Your task to perform on an android device: Show me recent news Image 0: 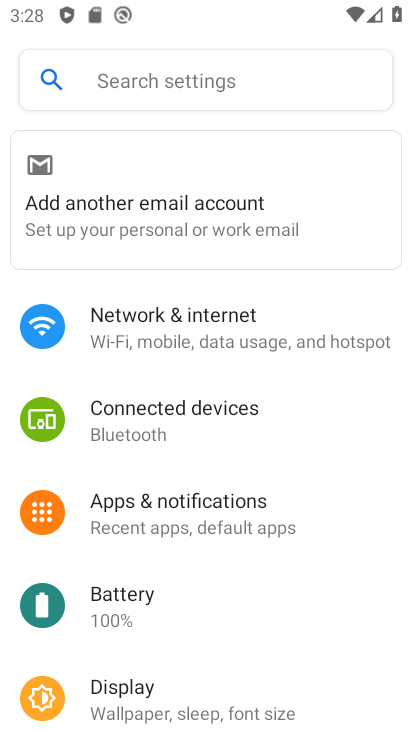
Step 0: press back button
Your task to perform on an android device: Show me recent news Image 1: 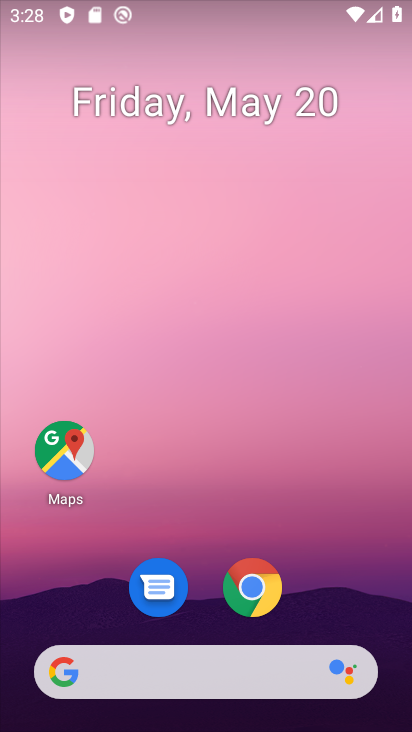
Step 1: drag from (346, 593) to (266, 15)
Your task to perform on an android device: Show me recent news Image 2: 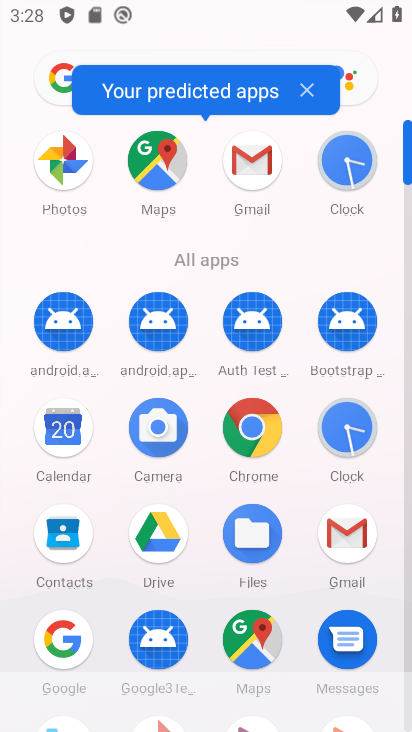
Step 2: click (252, 425)
Your task to perform on an android device: Show me recent news Image 3: 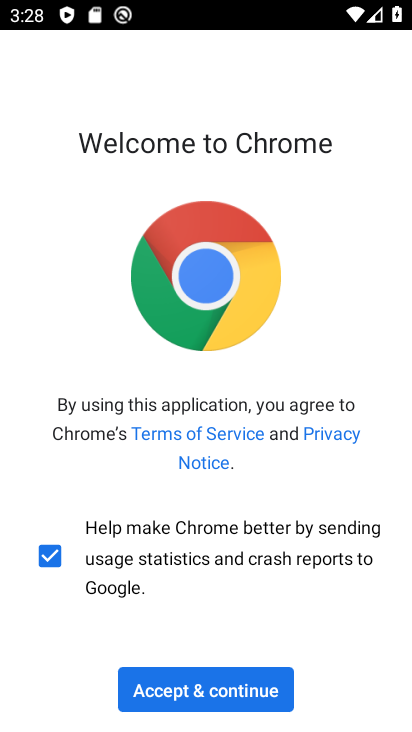
Step 3: click (181, 668)
Your task to perform on an android device: Show me recent news Image 4: 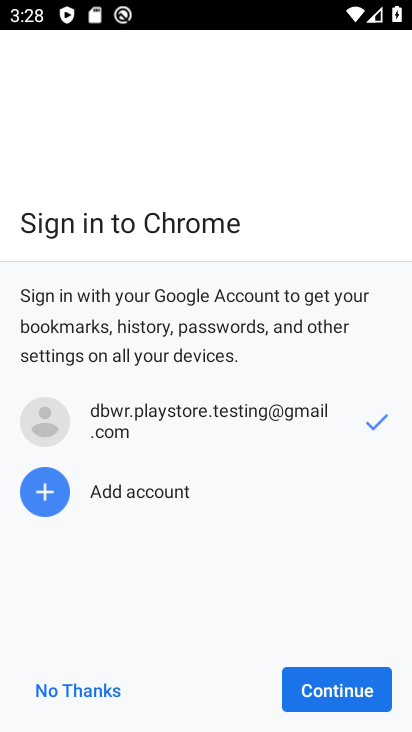
Step 4: click (355, 676)
Your task to perform on an android device: Show me recent news Image 5: 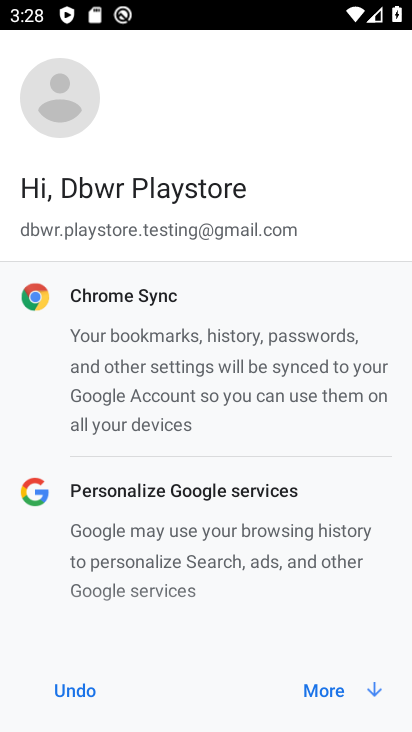
Step 5: click (334, 690)
Your task to perform on an android device: Show me recent news Image 6: 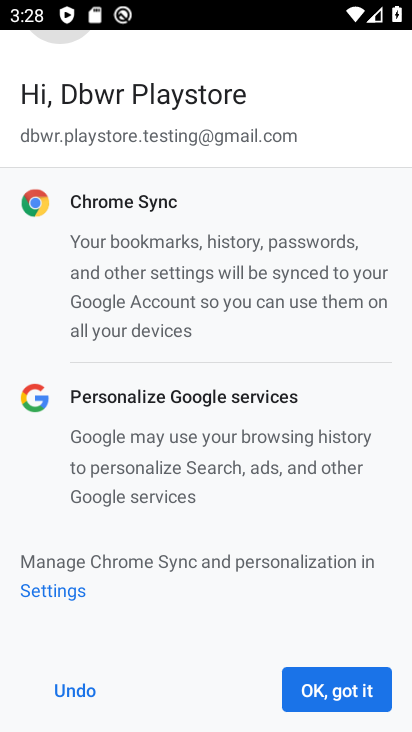
Step 6: click (334, 690)
Your task to perform on an android device: Show me recent news Image 7: 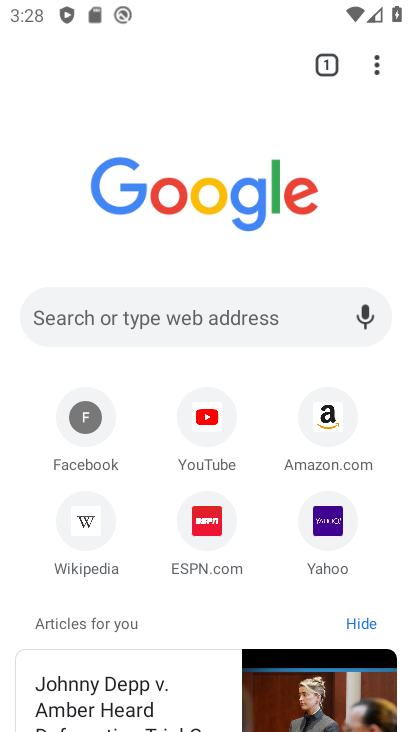
Step 7: click (228, 313)
Your task to perform on an android device: Show me recent news Image 8: 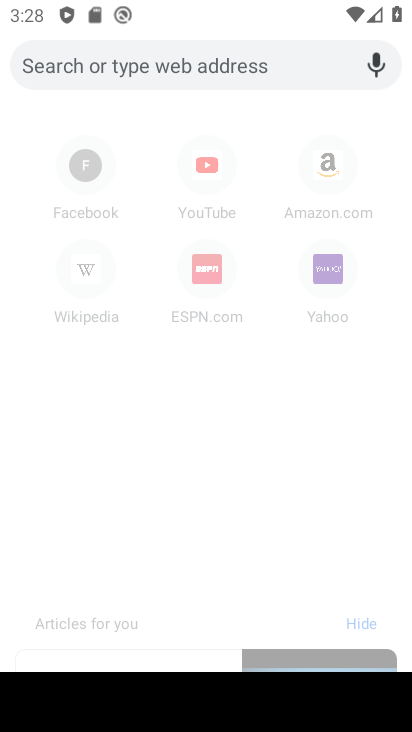
Step 8: type "Show me recent news"
Your task to perform on an android device: Show me recent news Image 9: 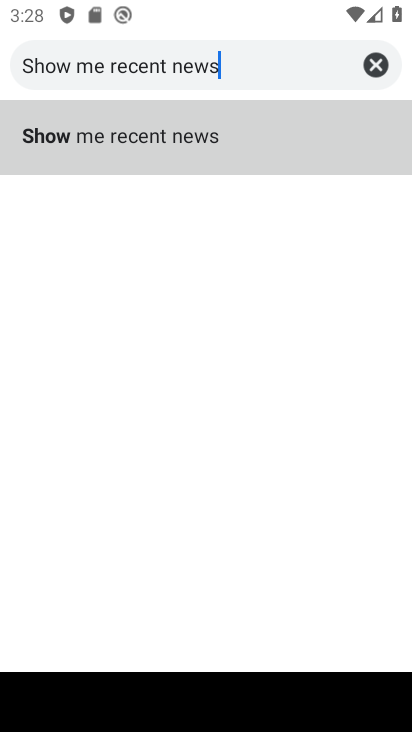
Step 9: type ""
Your task to perform on an android device: Show me recent news Image 10: 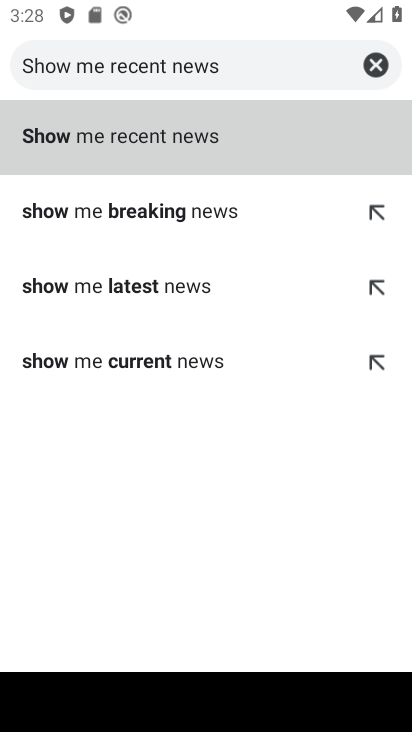
Step 10: click (124, 126)
Your task to perform on an android device: Show me recent news Image 11: 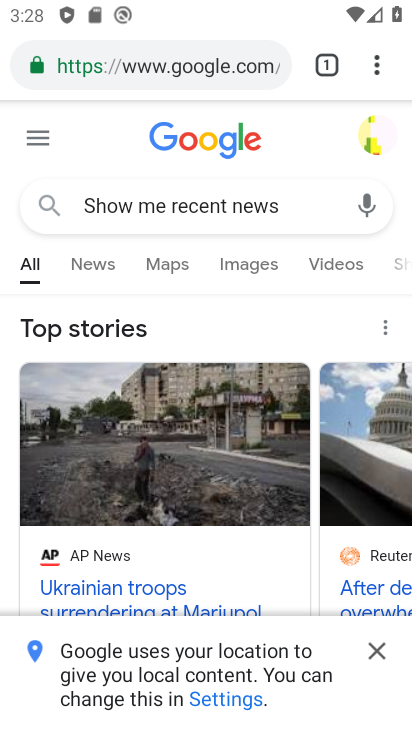
Step 11: click (374, 647)
Your task to perform on an android device: Show me recent news Image 12: 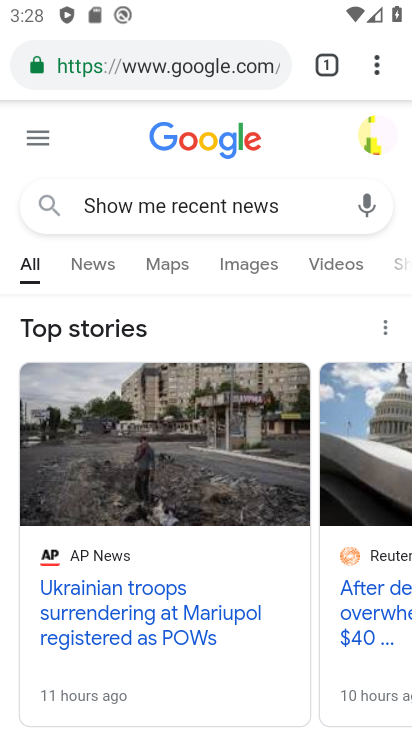
Step 12: task complete